Your task to perform on an android device: turn on improve location accuracy Image 0: 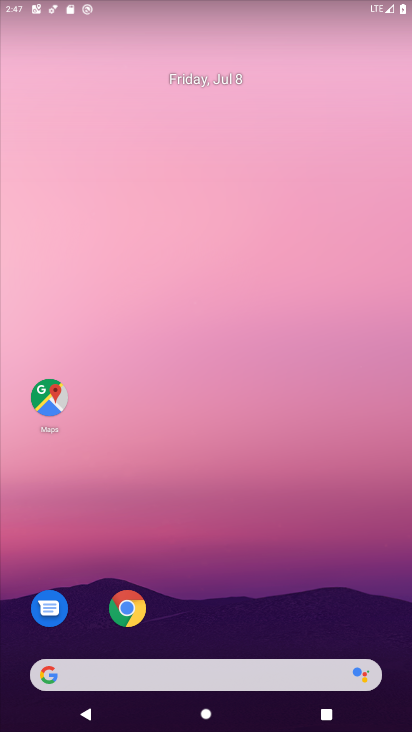
Step 0: drag from (280, 590) to (215, 152)
Your task to perform on an android device: turn on improve location accuracy Image 1: 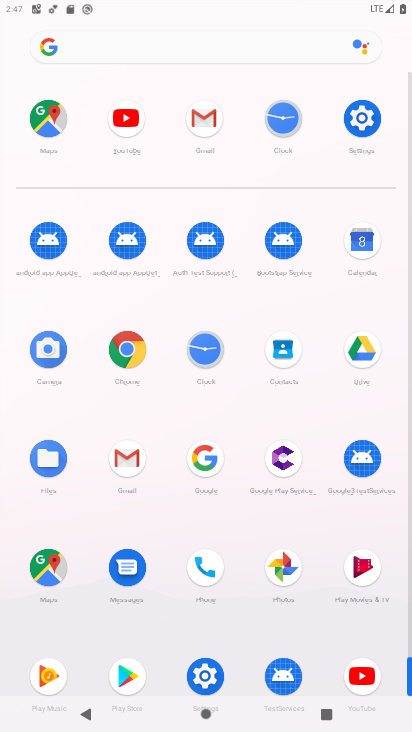
Step 1: click (359, 118)
Your task to perform on an android device: turn on improve location accuracy Image 2: 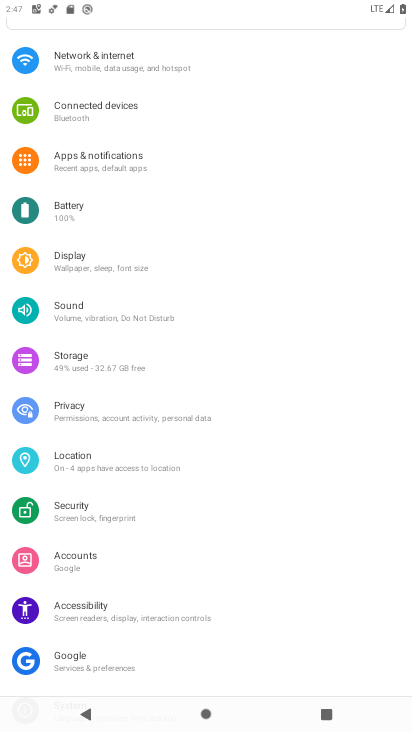
Step 2: click (63, 447)
Your task to perform on an android device: turn on improve location accuracy Image 3: 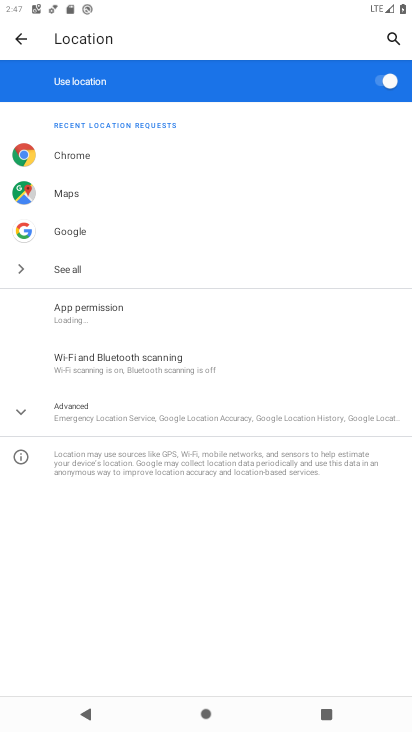
Step 3: click (141, 401)
Your task to perform on an android device: turn on improve location accuracy Image 4: 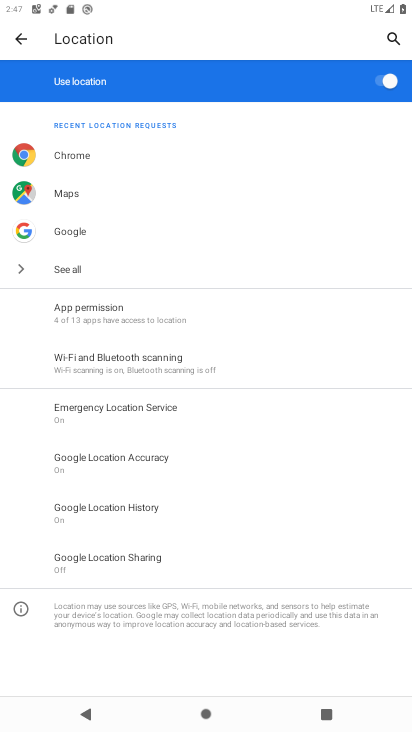
Step 4: click (163, 450)
Your task to perform on an android device: turn on improve location accuracy Image 5: 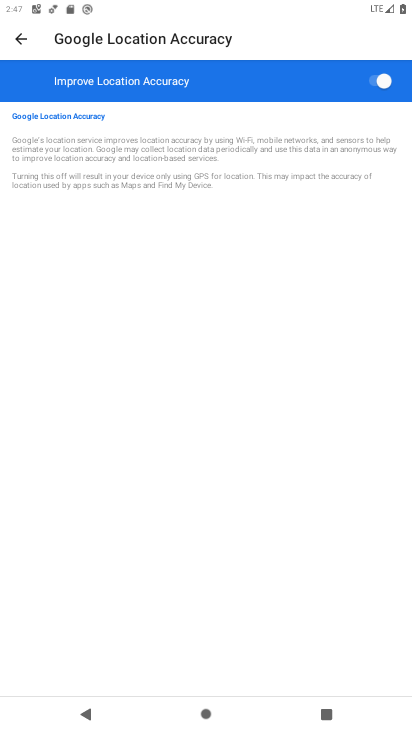
Step 5: task complete